Your task to perform on an android device: Go to sound settings Image 0: 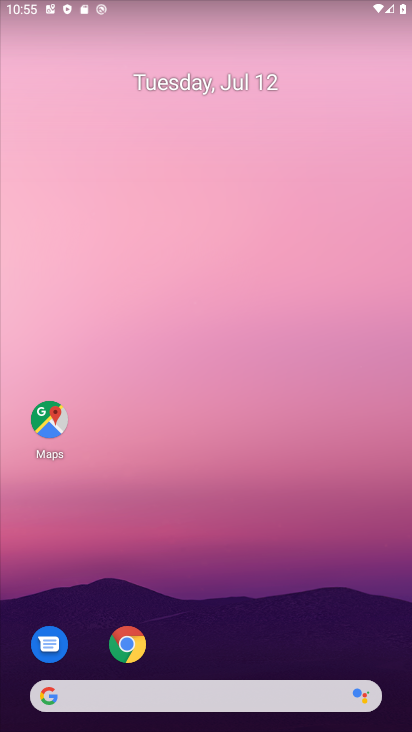
Step 0: press home button
Your task to perform on an android device: Go to sound settings Image 1: 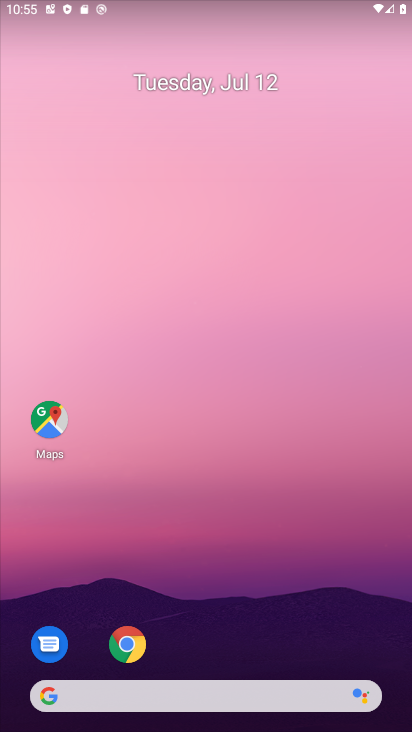
Step 1: drag from (217, 655) to (268, 0)
Your task to perform on an android device: Go to sound settings Image 2: 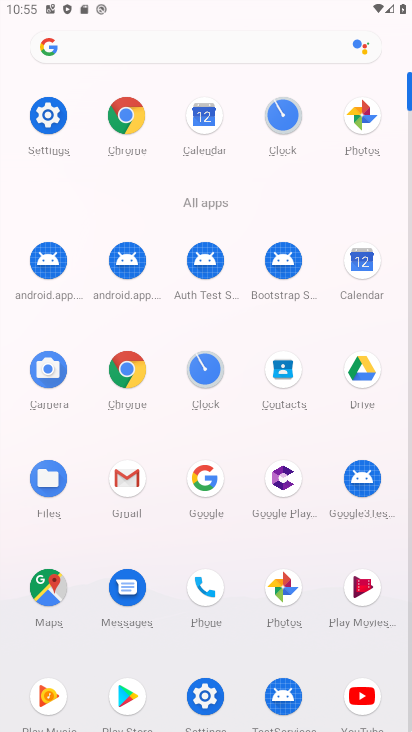
Step 2: click (43, 108)
Your task to perform on an android device: Go to sound settings Image 3: 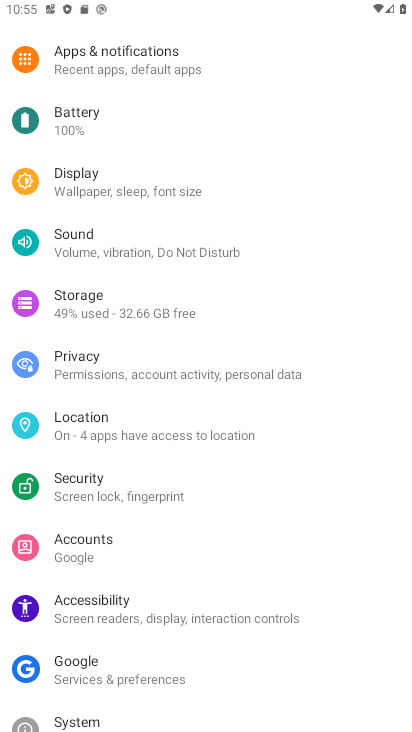
Step 3: click (107, 235)
Your task to perform on an android device: Go to sound settings Image 4: 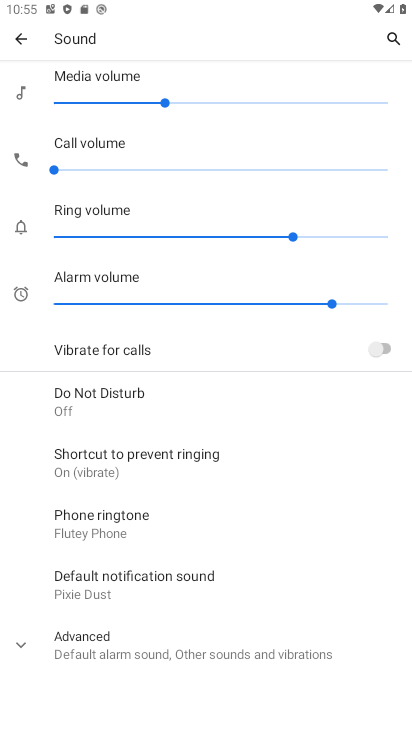
Step 4: click (23, 643)
Your task to perform on an android device: Go to sound settings Image 5: 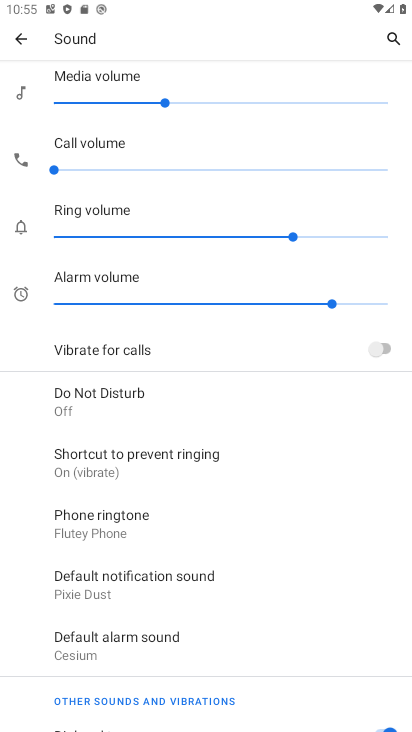
Step 5: task complete